Your task to perform on an android device: Open CNN.com Image 0: 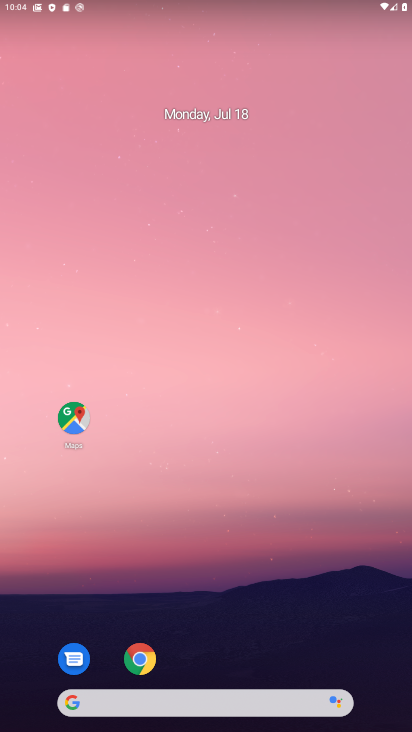
Step 0: drag from (215, 638) to (257, 169)
Your task to perform on an android device: Open CNN.com Image 1: 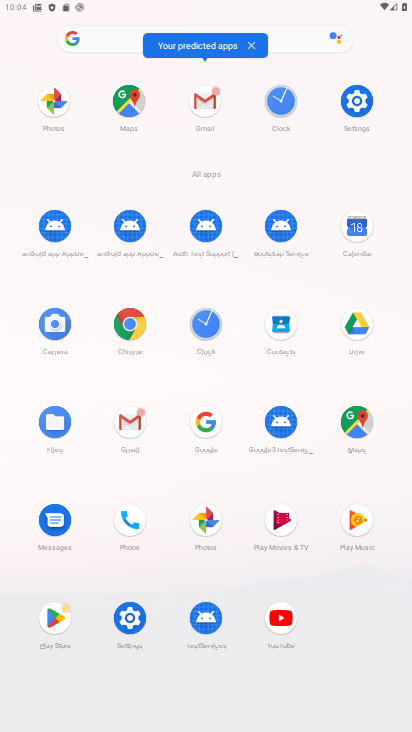
Step 1: click (206, 428)
Your task to perform on an android device: Open CNN.com Image 2: 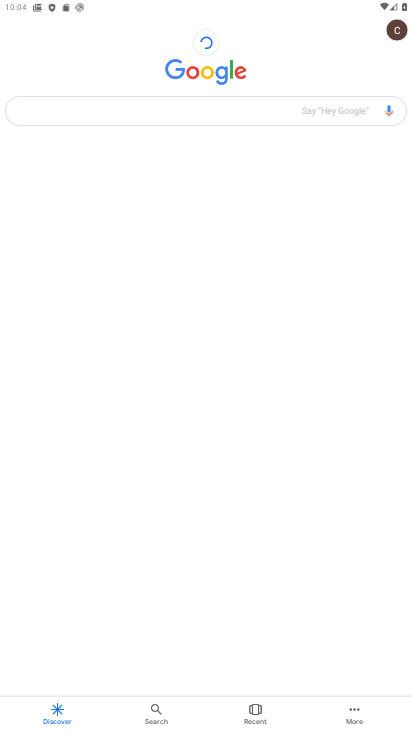
Step 2: click (188, 110)
Your task to perform on an android device: Open CNN.com Image 3: 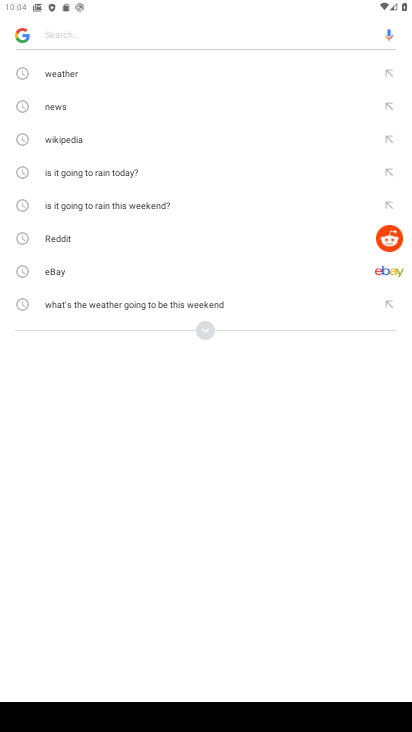
Step 3: type "cnn.com"
Your task to perform on an android device: Open CNN.com Image 4: 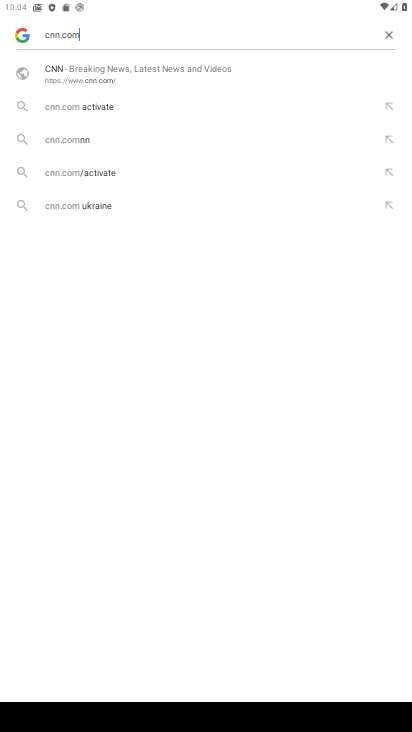
Step 4: click (93, 63)
Your task to perform on an android device: Open CNN.com Image 5: 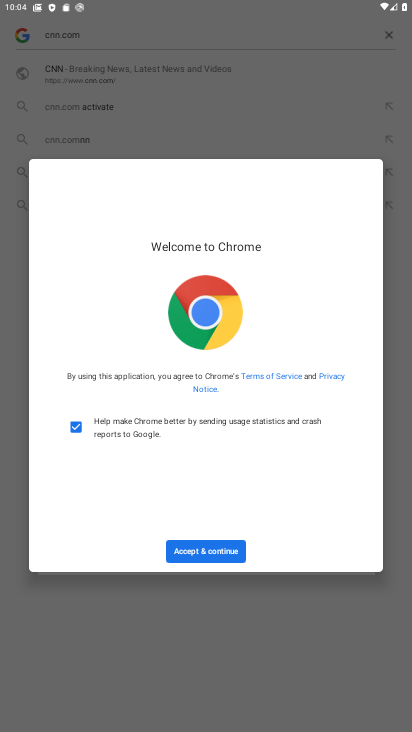
Step 5: click (211, 554)
Your task to perform on an android device: Open CNN.com Image 6: 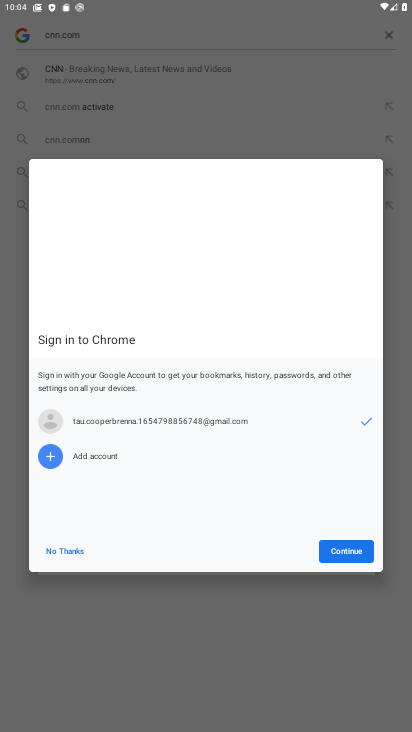
Step 6: click (351, 556)
Your task to perform on an android device: Open CNN.com Image 7: 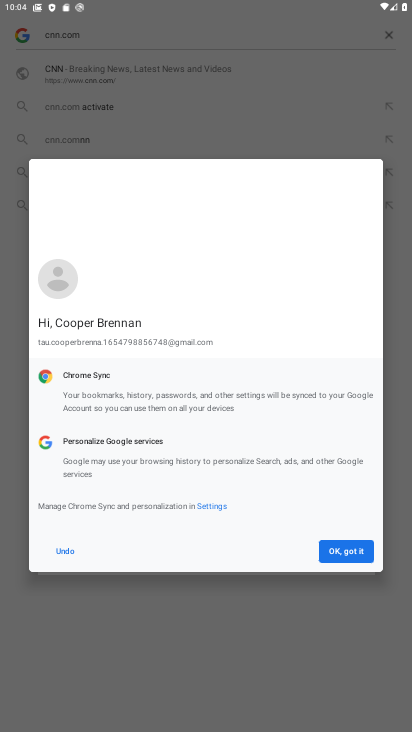
Step 7: click (351, 556)
Your task to perform on an android device: Open CNN.com Image 8: 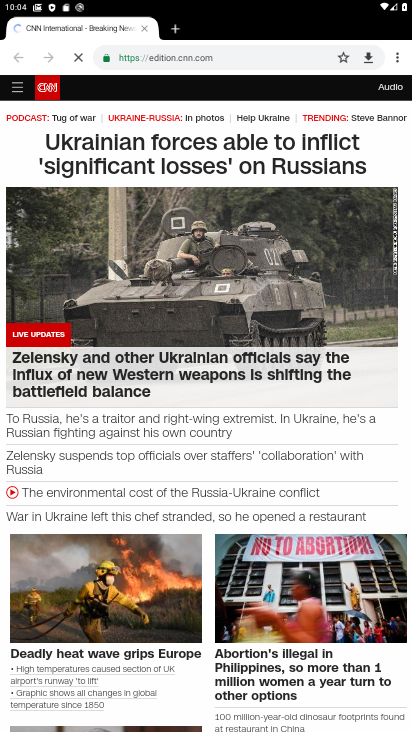
Step 8: task complete